Your task to perform on an android device: What's on my calendar tomorrow? Image 0: 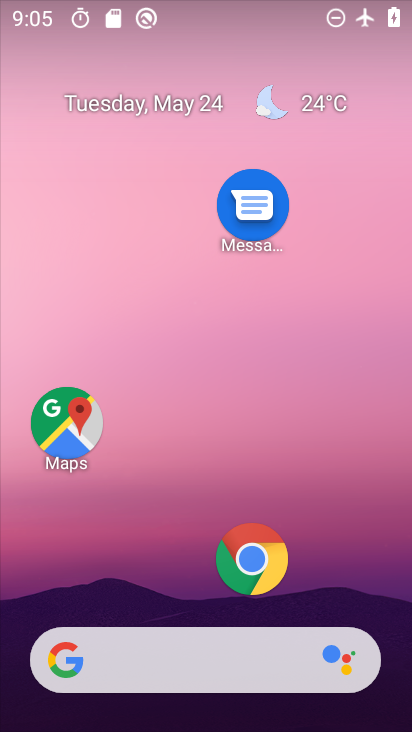
Step 0: drag from (178, 589) to (178, 228)
Your task to perform on an android device: What's on my calendar tomorrow? Image 1: 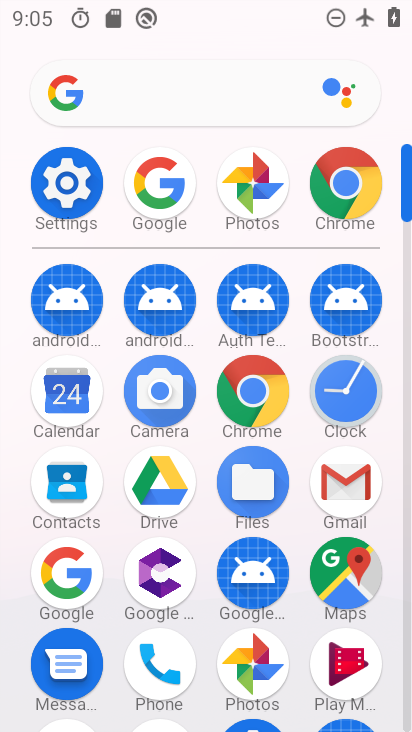
Step 1: click (73, 383)
Your task to perform on an android device: What's on my calendar tomorrow? Image 2: 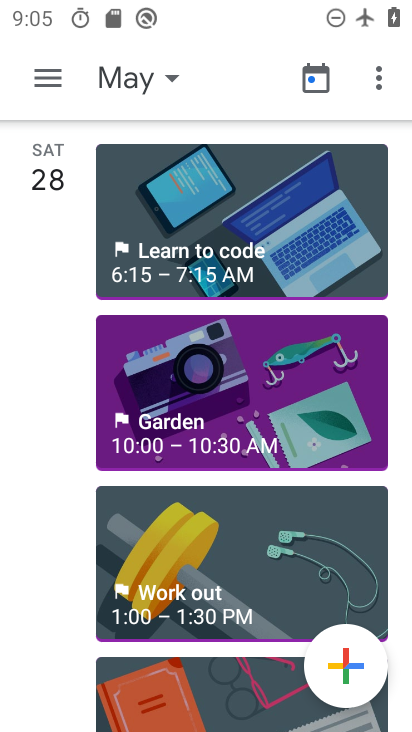
Step 2: click (164, 78)
Your task to perform on an android device: What's on my calendar tomorrow? Image 3: 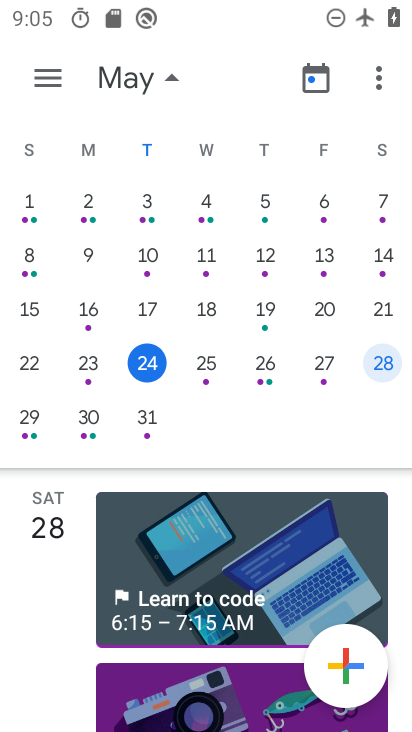
Step 3: click (203, 362)
Your task to perform on an android device: What's on my calendar tomorrow? Image 4: 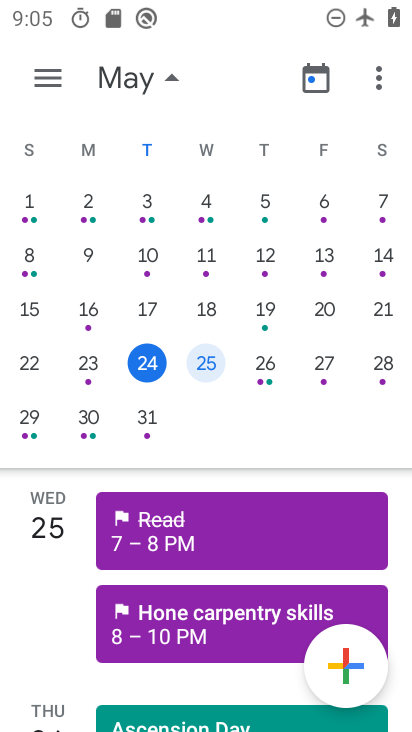
Step 4: task complete